Your task to perform on an android device: When is my next appointment? Image 0: 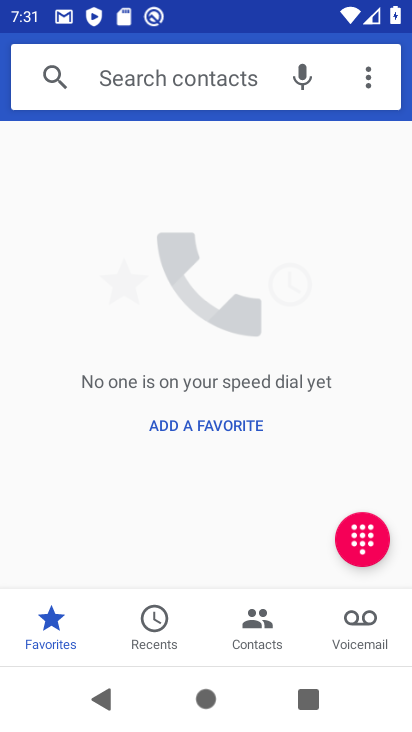
Step 0: press home button
Your task to perform on an android device: When is my next appointment? Image 1: 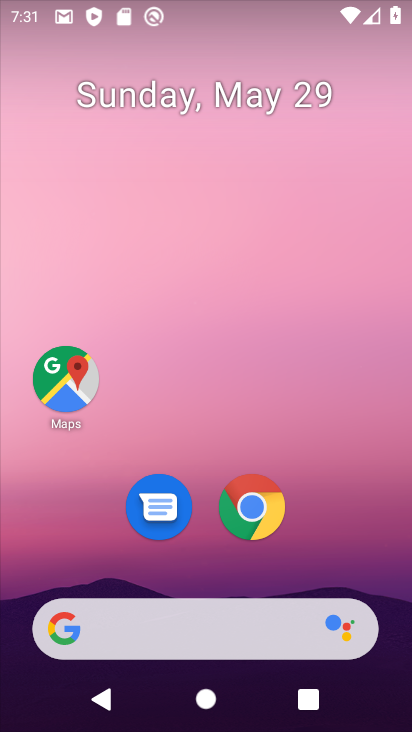
Step 1: drag from (364, 534) to (296, 126)
Your task to perform on an android device: When is my next appointment? Image 2: 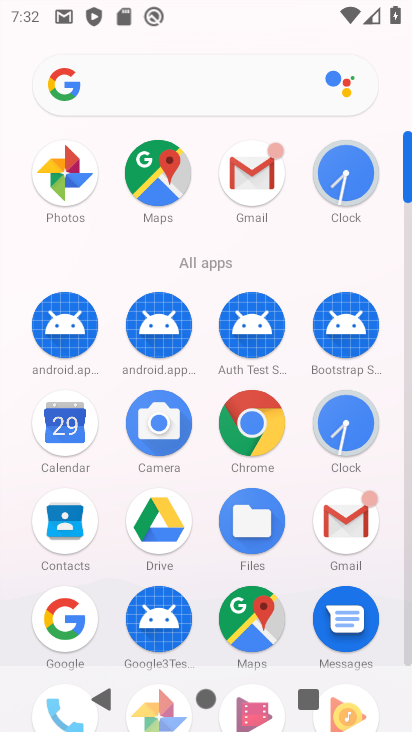
Step 2: click (54, 467)
Your task to perform on an android device: When is my next appointment? Image 3: 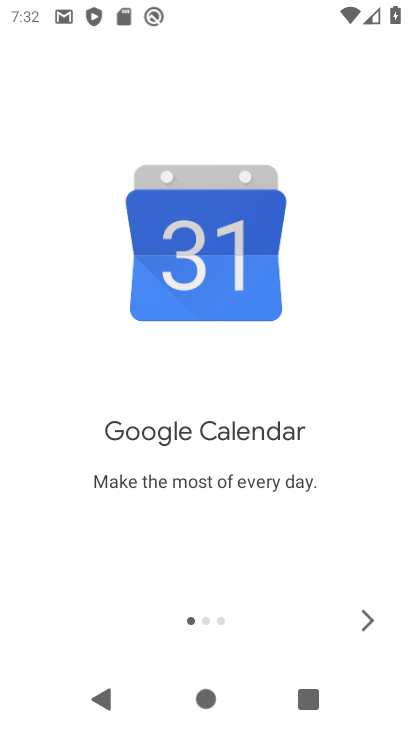
Step 3: click (357, 614)
Your task to perform on an android device: When is my next appointment? Image 4: 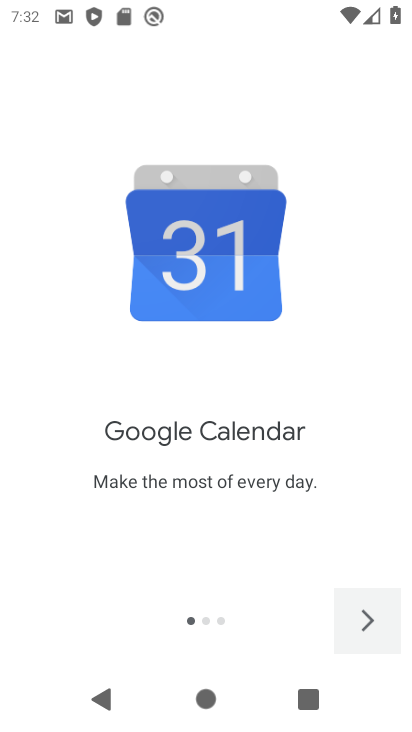
Step 4: click (357, 614)
Your task to perform on an android device: When is my next appointment? Image 5: 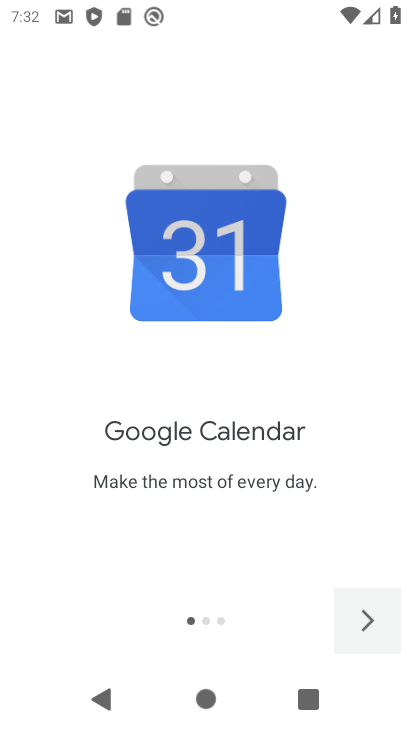
Step 5: click (357, 614)
Your task to perform on an android device: When is my next appointment? Image 6: 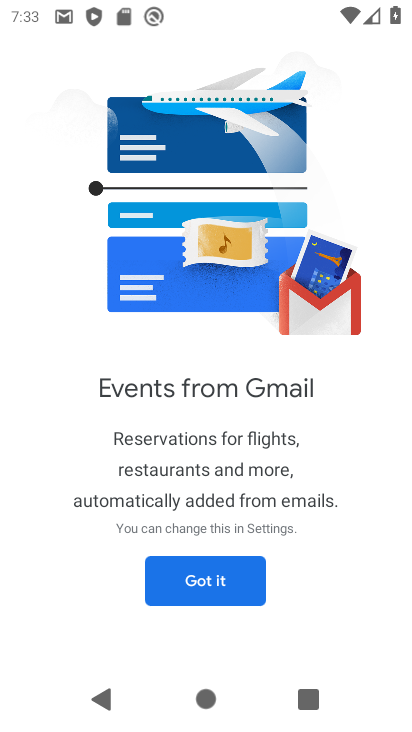
Step 6: click (204, 588)
Your task to perform on an android device: When is my next appointment? Image 7: 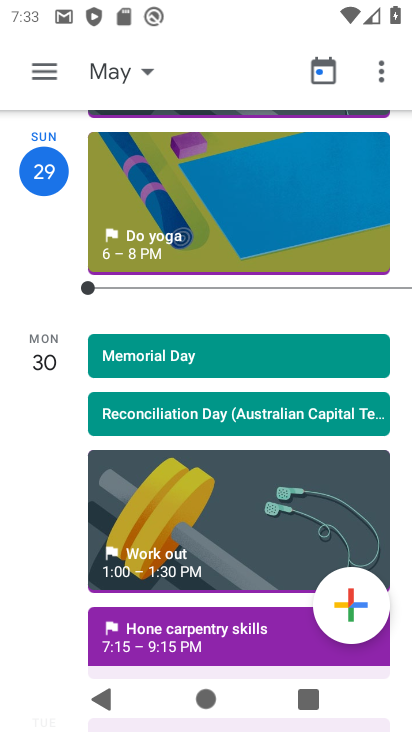
Step 7: task complete